Your task to perform on an android device: check battery use Image 0: 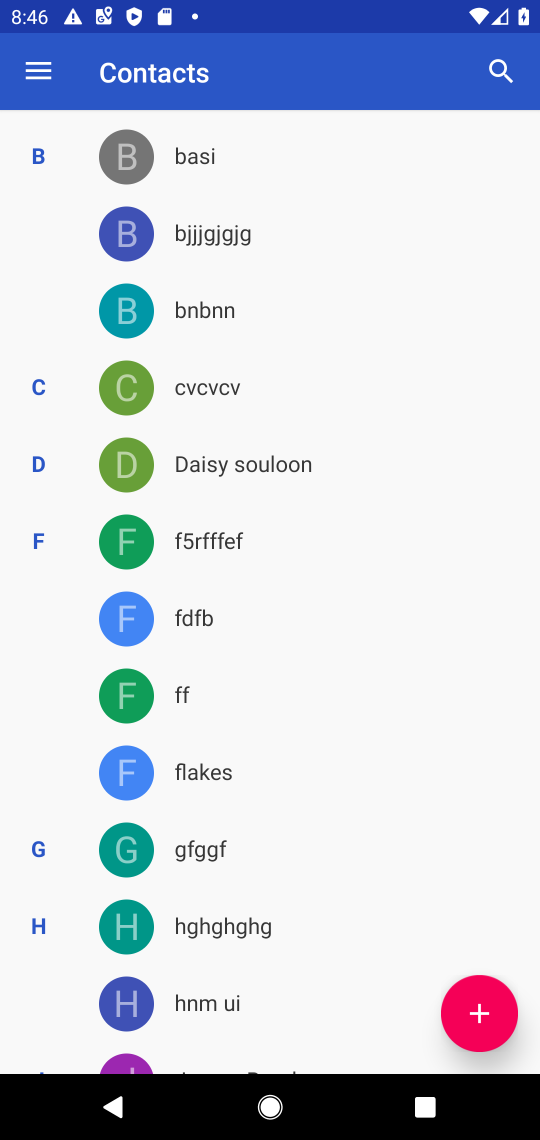
Step 0: press home button
Your task to perform on an android device: check battery use Image 1: 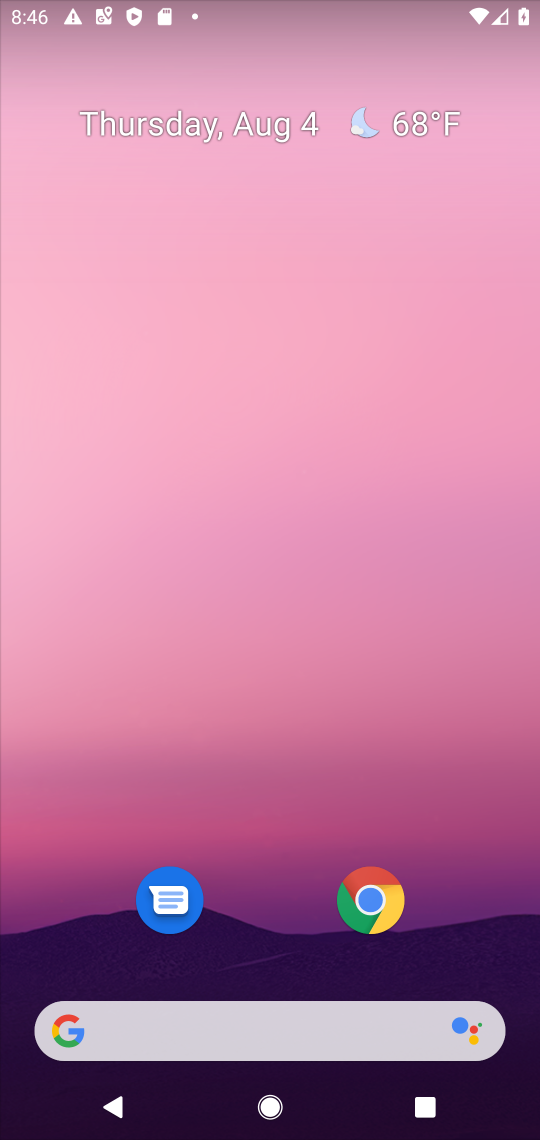
Step 1: drag from (239, 765) to (262, 33)
Your task to perform on an android device: check battery use Image 2: 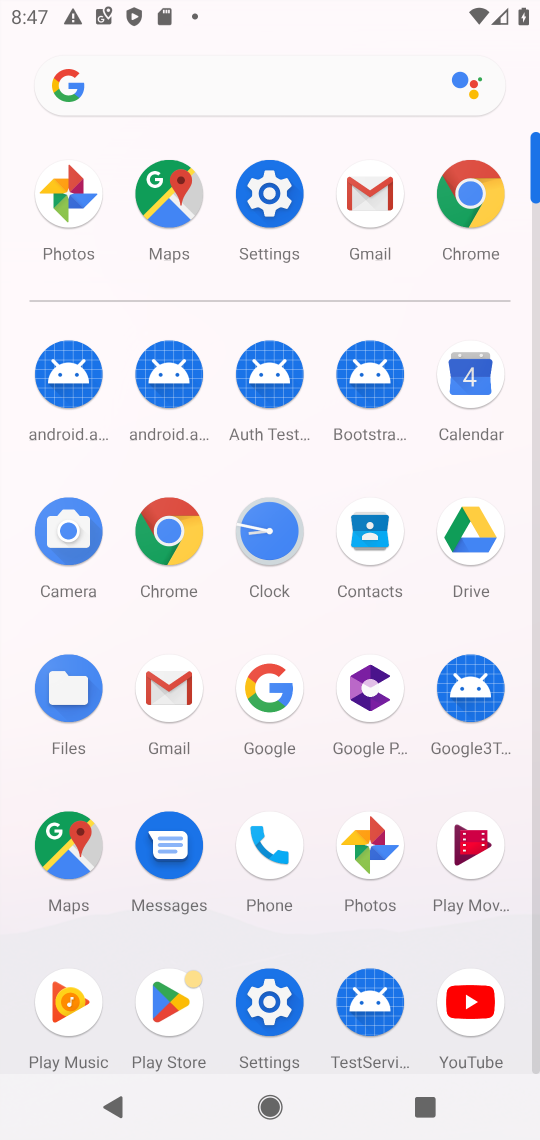
Step 2: click (271, 205)
Your task to perform on an android device: check battery use Image 3: 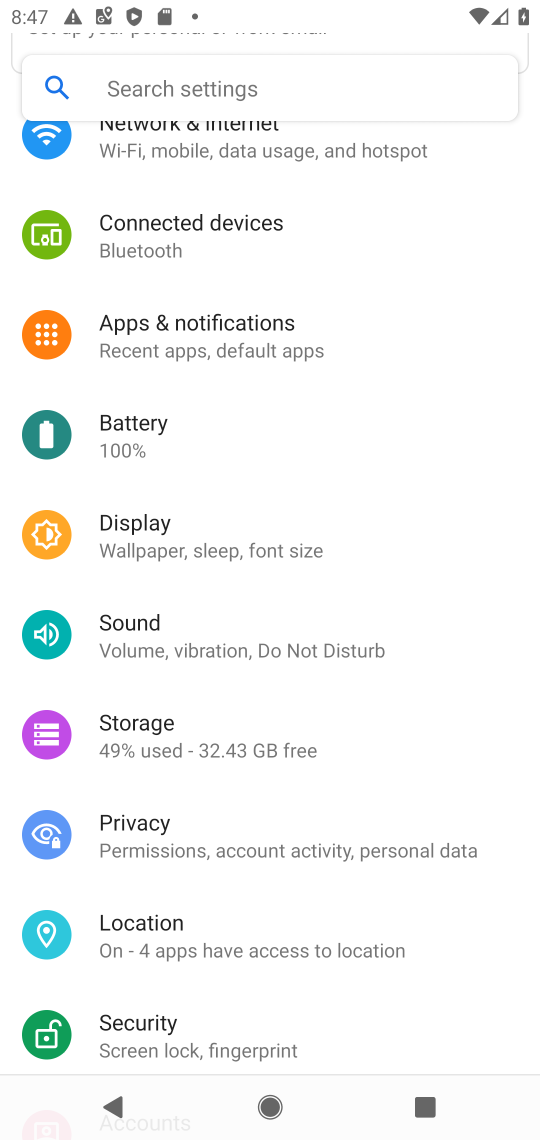
Step 3: click (130, 431)
Your task to perform on an android device: check battery use Image 4: 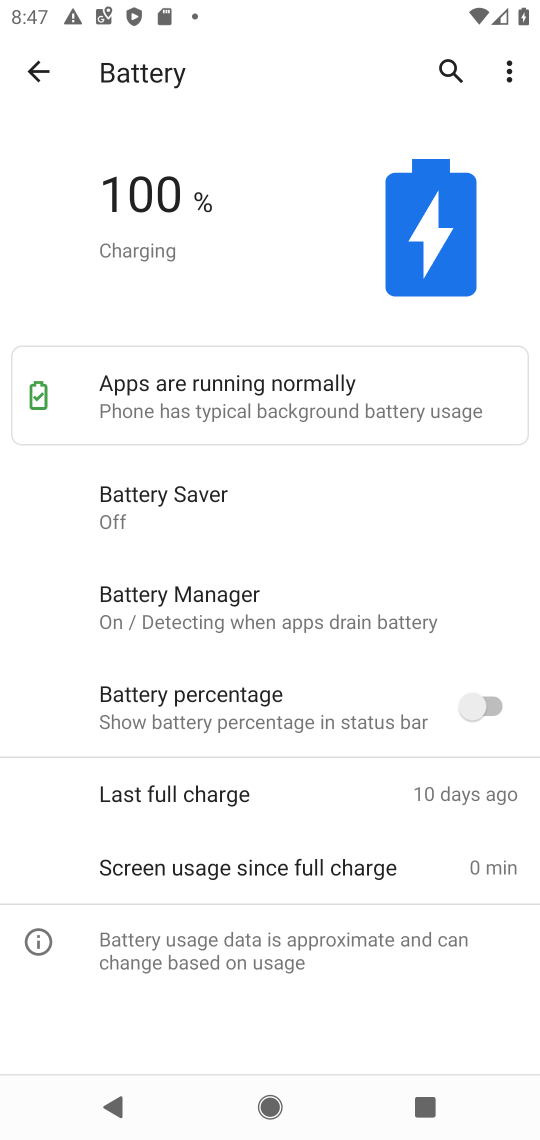
Step 4: task complete